Your task to perform on an android device: Go to Amazon Image 0: 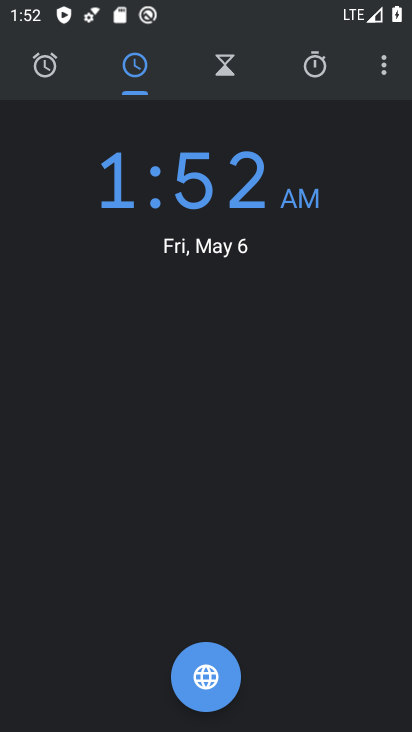
Step 0: press home button
Your task to perform on an android device: Go to Amazon Image 1: 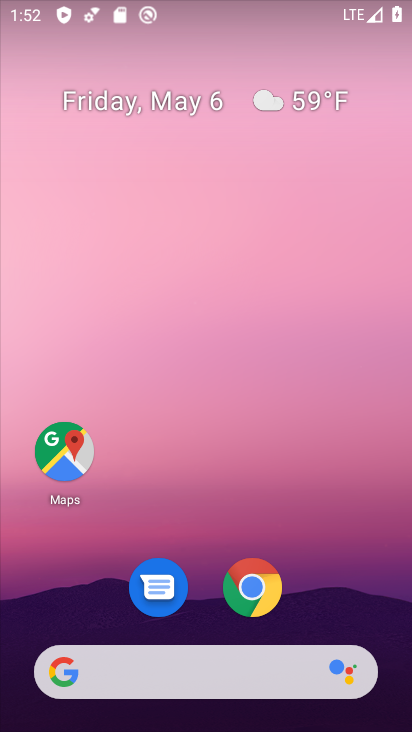
Step 1: drag from (372, 521) to (412, 50)
Your task to perform on an android device: Go to Amazon Image 2: 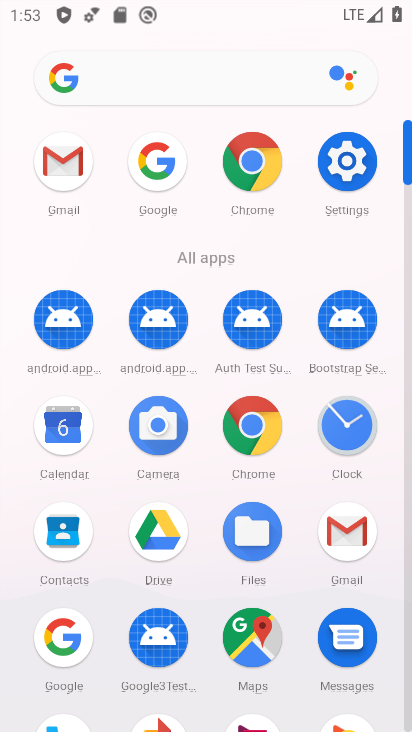
Step 2: click (253, 171)
Your task to perform on an android device: Go to Amazon Image 3: 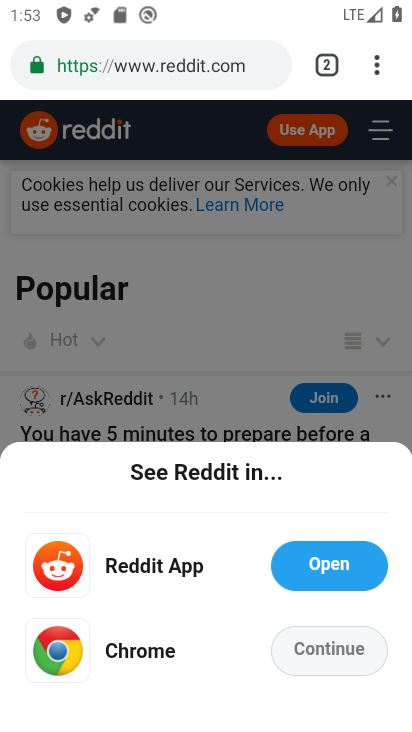
Step 3: click (195, 56)
Your task to perform on an android device: Go to Amazon Image 4: 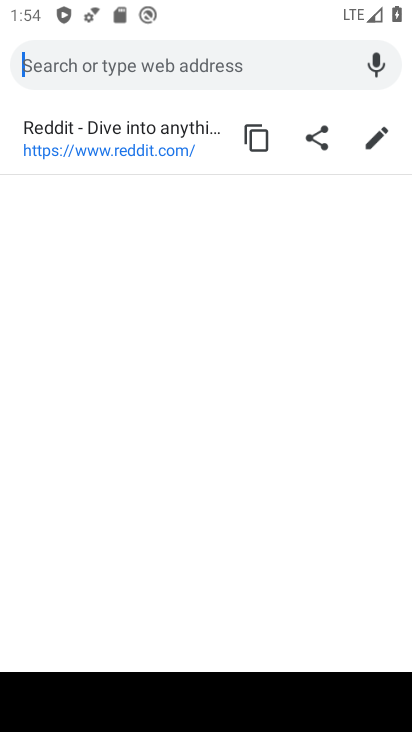
Step 4: type "amazon"
Your task to perform on an android device: Go to Amazon Image 5: 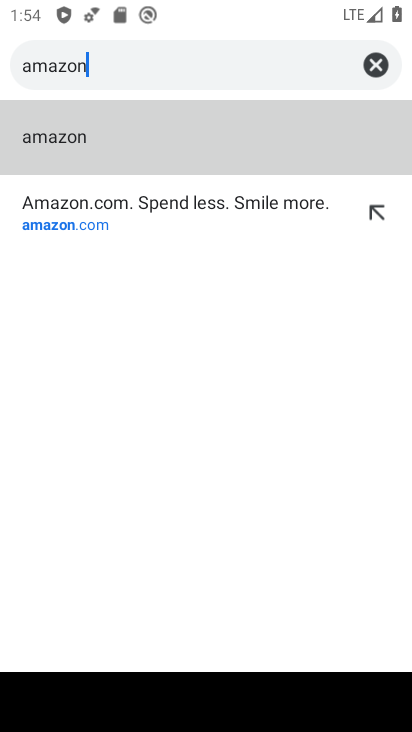
Step 5: click (47, 134)
Your task to perform on an android device: Go to Amazon Image 6: 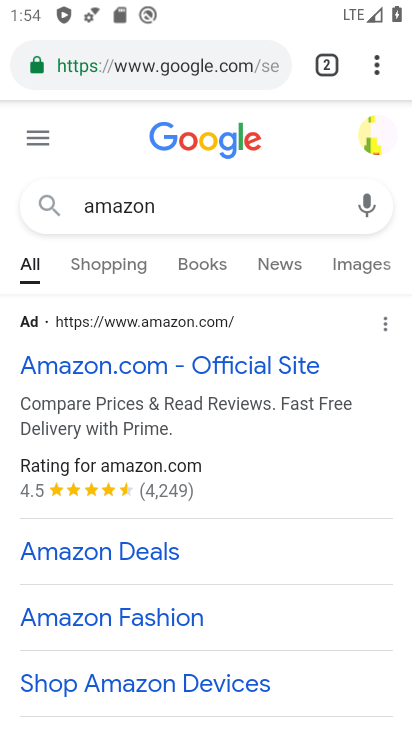
Step 6: click (100, 374)
Your task to perform on an android device: Go to Amazon Image 7: 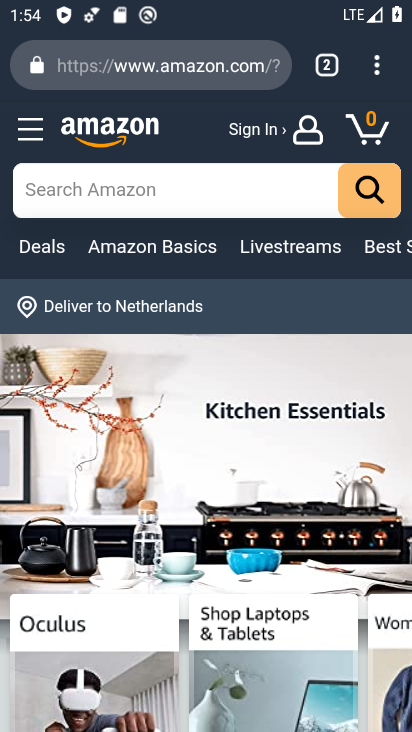
Step 7: task complete